Your task to perform on an android device: Search for "razer naga" on target, select the first entry, and add it to the cart. Image 0: 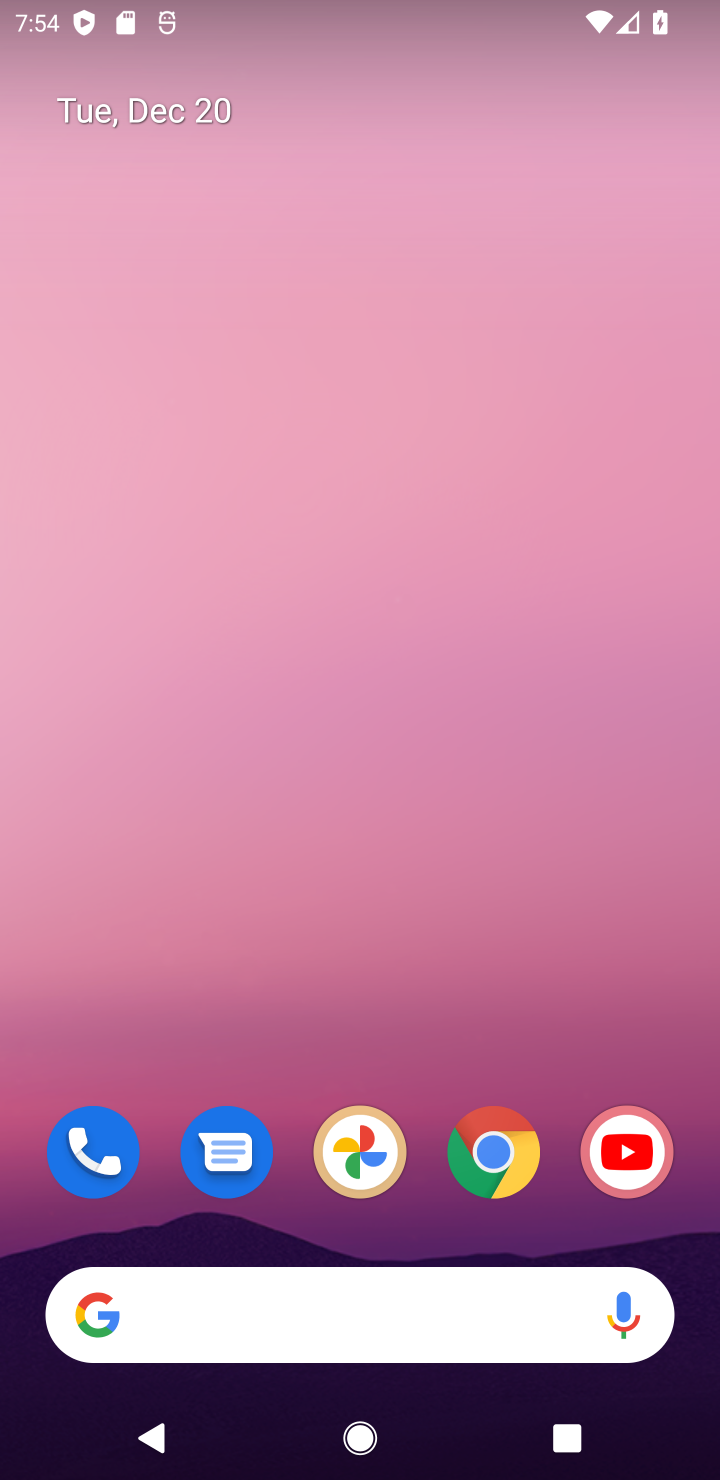
Step 0: click (471, 1145)
Your task to perform on an android device: Search for "razer naga" on target, select the first entry, and add it to the cart. Image 1: 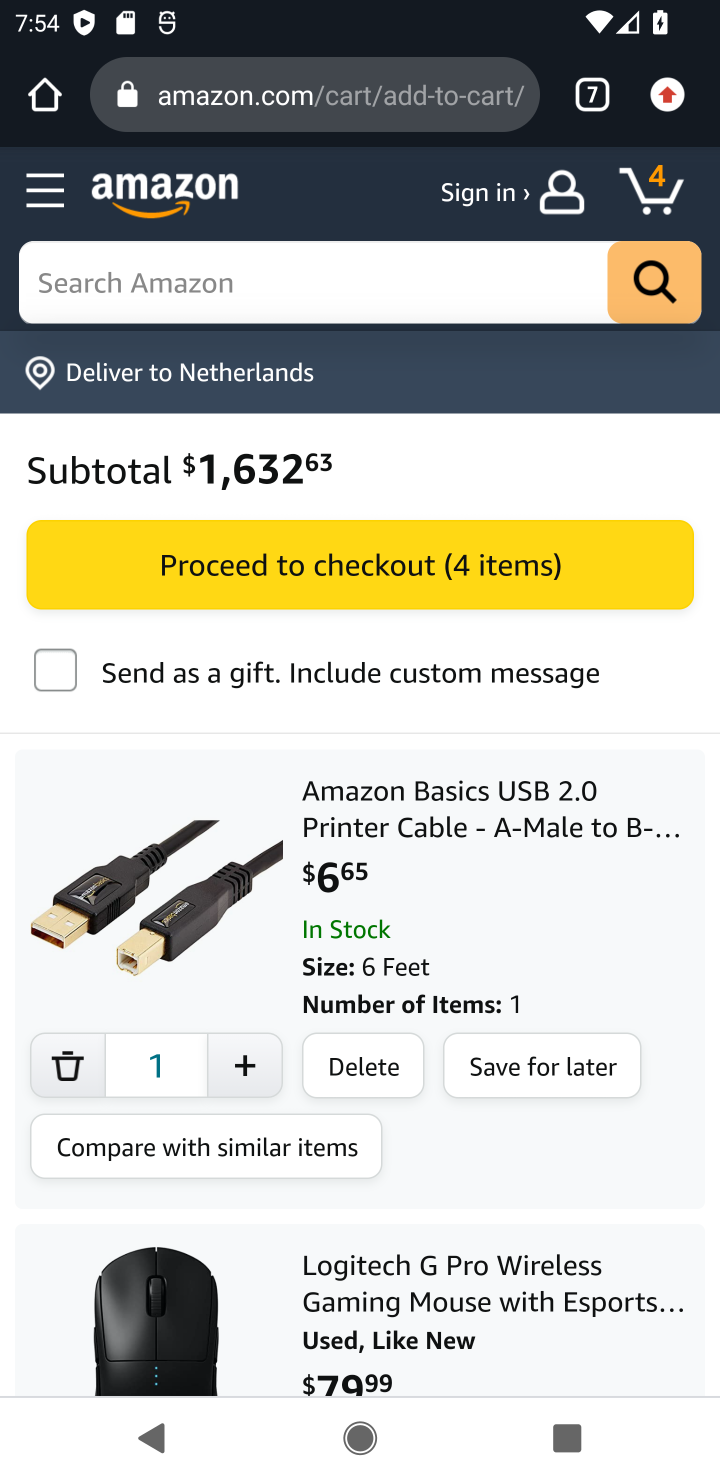
Step 1: click (603, 90)
Your task to perform on an android device: Search for "razer naga" on target, select the first entry, and add it to the cart. Image 2: 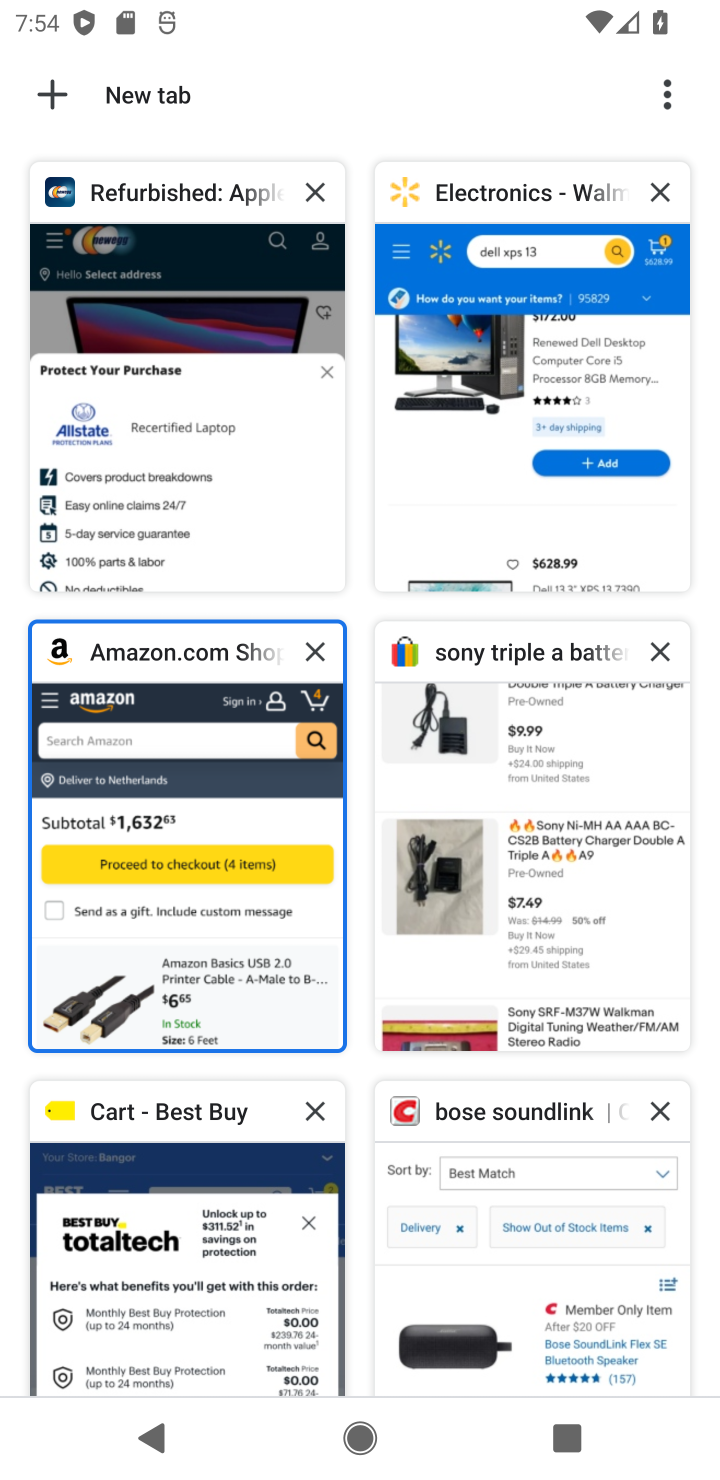
Step 2: drag from (423, 1183) to (437, 656)
Your task to perform on an android device: Search for "razer naga" on target, select the first entry, and add it to the cart. Image 3: 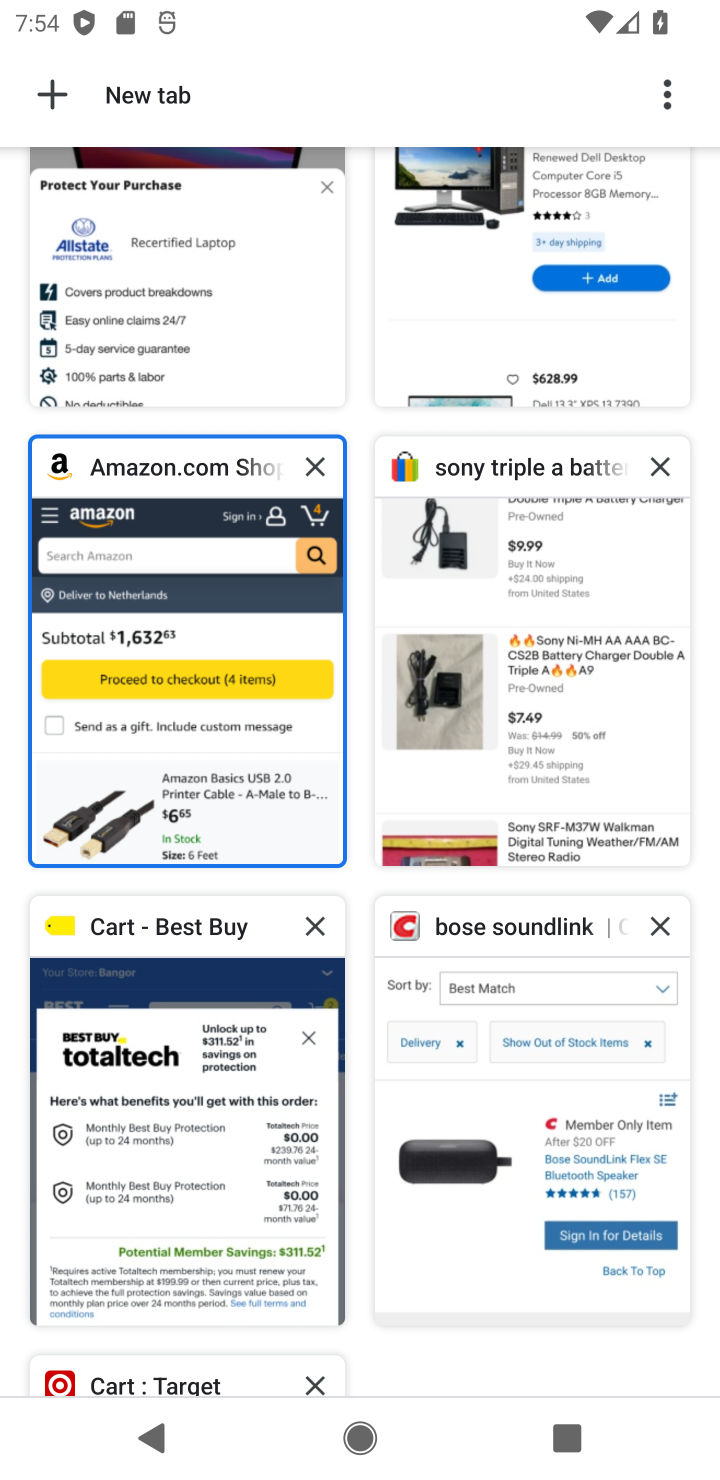
Step 3: drag from (380, 1204) to (566, 364)
Your task to perform on an android device: Search for "razer naga" on target, select the first entry, and add it to the cart. Image 4: 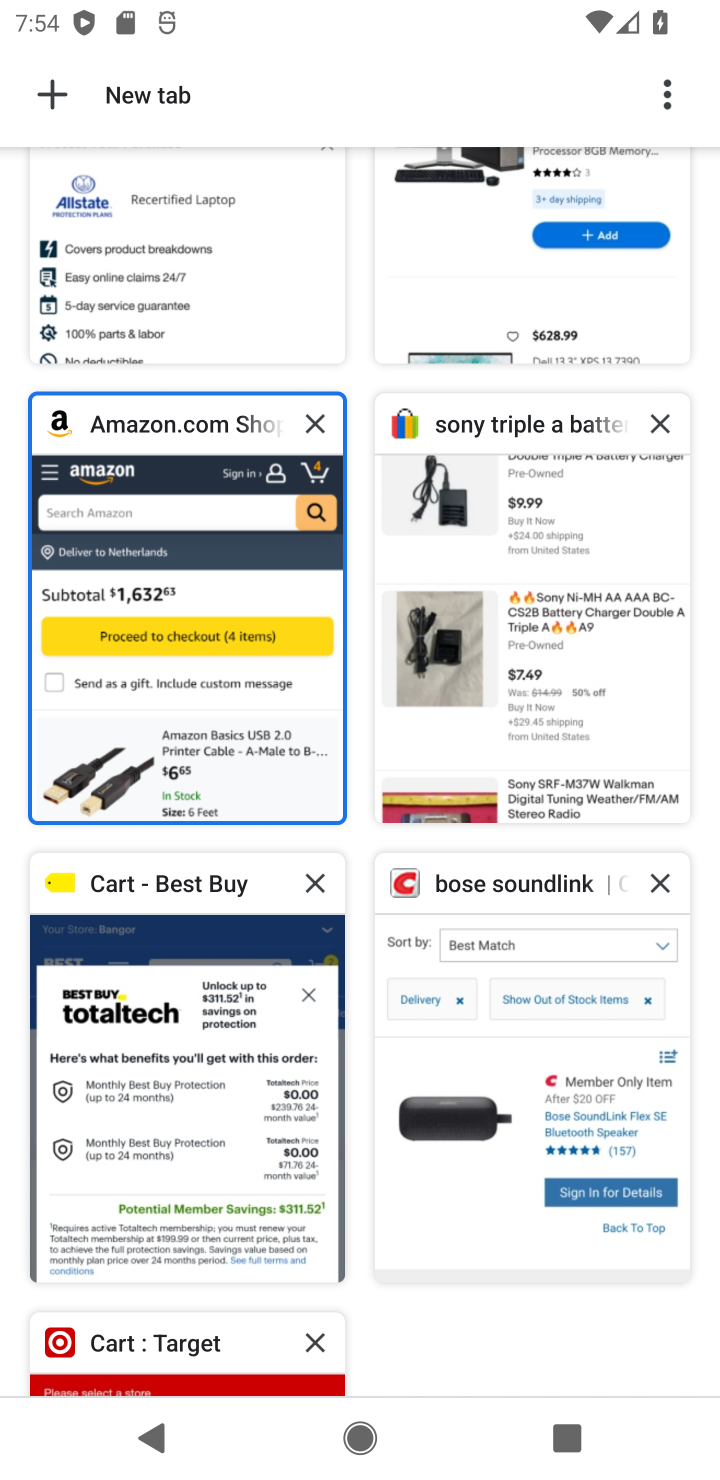
Step 4: click (217, 1354)
Your task to perform on an android device: Search for "razer naga" on target, select the first entry, and add it to the cart. Image 5: 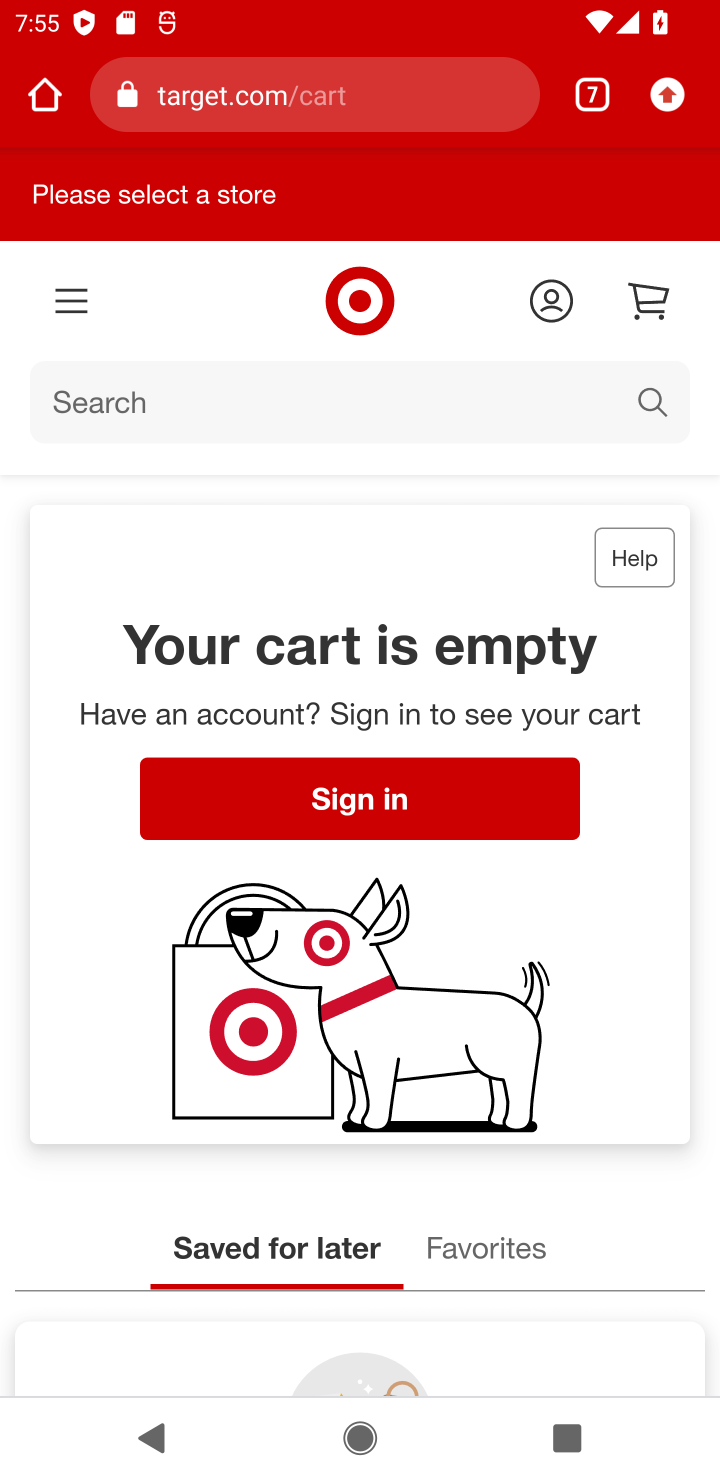
Step 5: click (189, 400)
Your task to perform on an android device: Search for "razer naga" on target, select the first entry, and add it to the cart. Image 6: 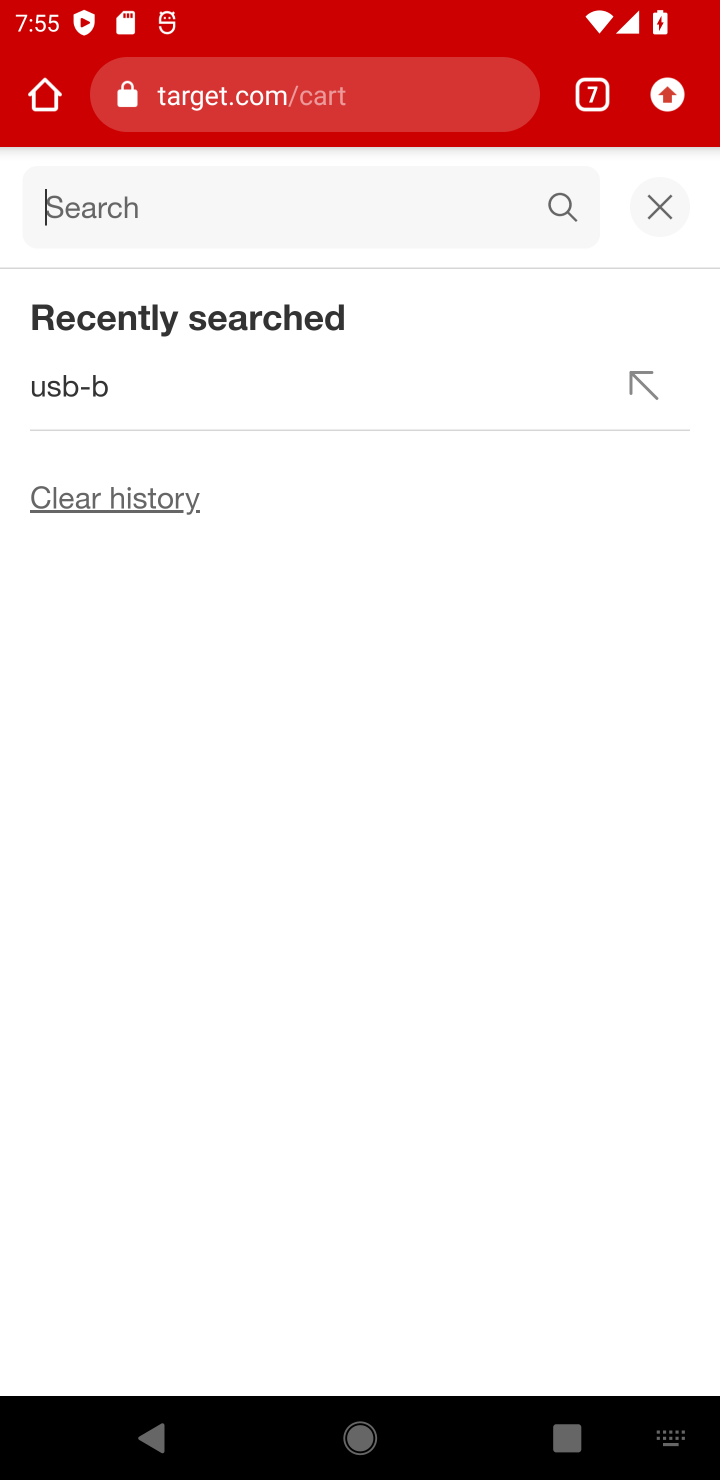
Step 6: type "razer naga"
Your task to perform on an android device: Search for "razer naga" on target, select the first entry, and add it to the cart. Image 7: 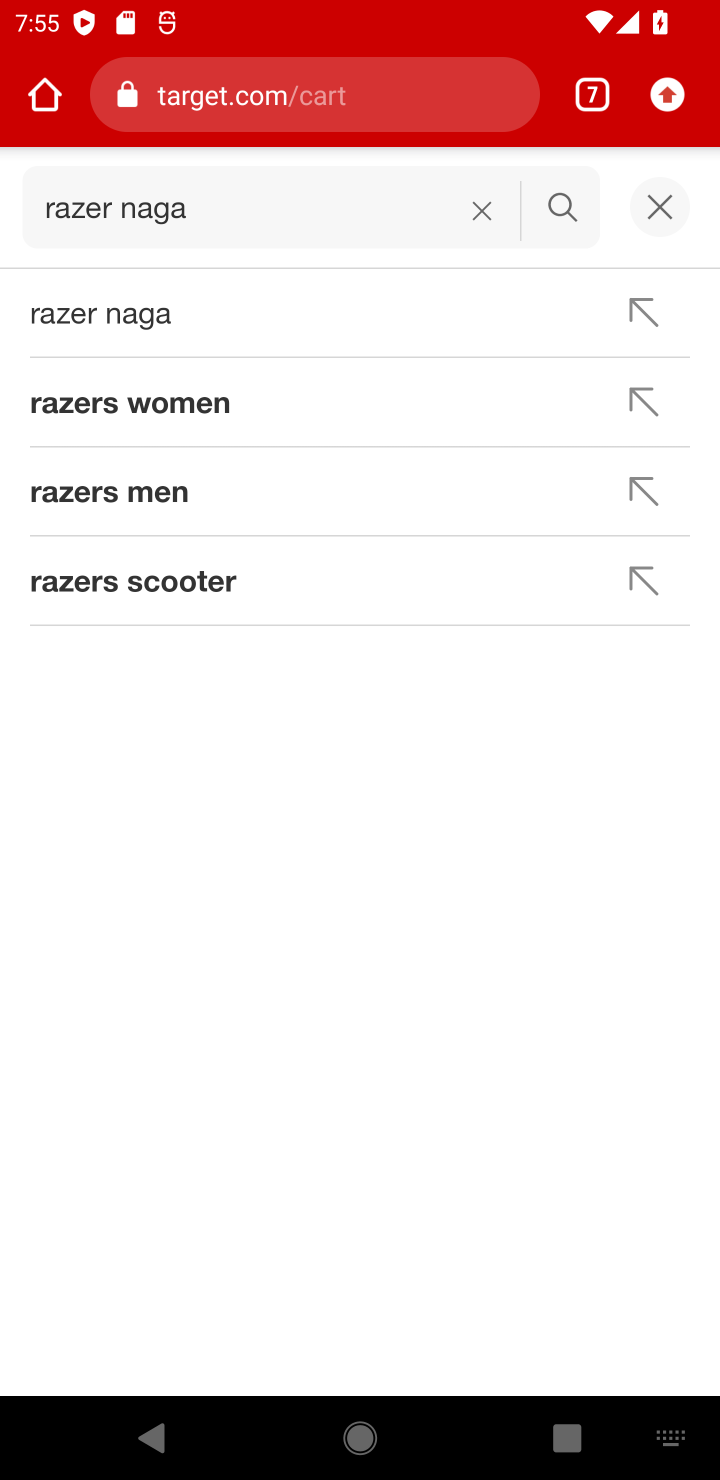
Step 7: click (161, 317)
Your task to perform on an android device: Search for "razer naga" on target, select the first entry, and add it to the cart. Image 8: 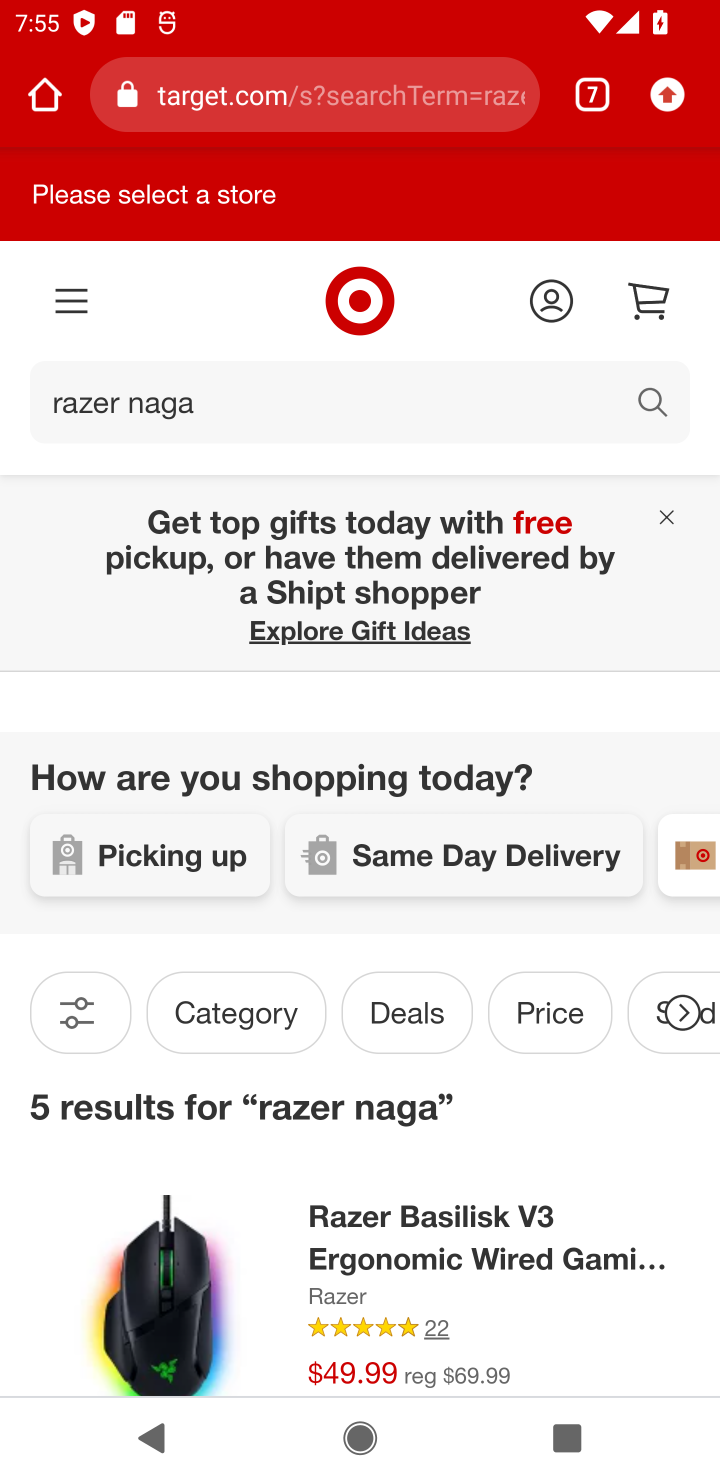
Step 8: task complete